Your task to perform on an android device: Go to notification settings Image 0: 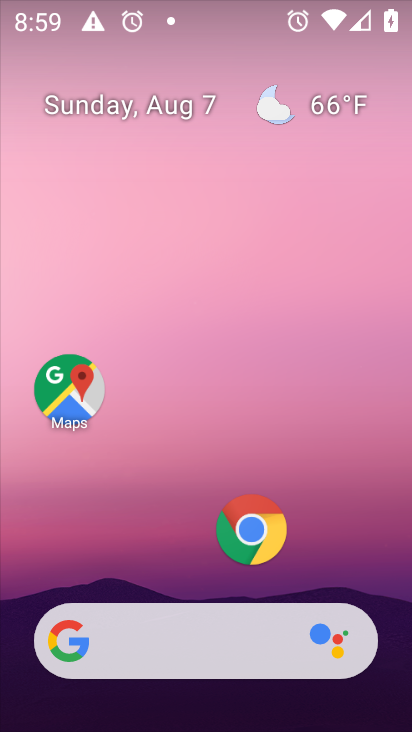
Step 0: drag from (175, 547) to (221, 50)
Your task to perform on an android device: Go to notification settings Image 1: 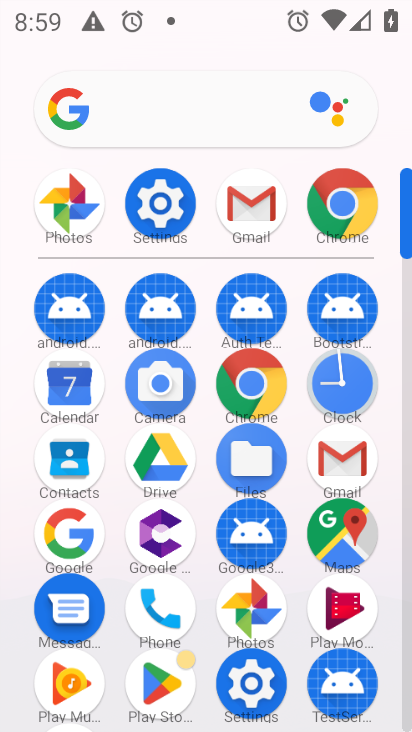
Step 1: click (249, 699)
Your task to perform on an android device: Go to notification settings Image 2: 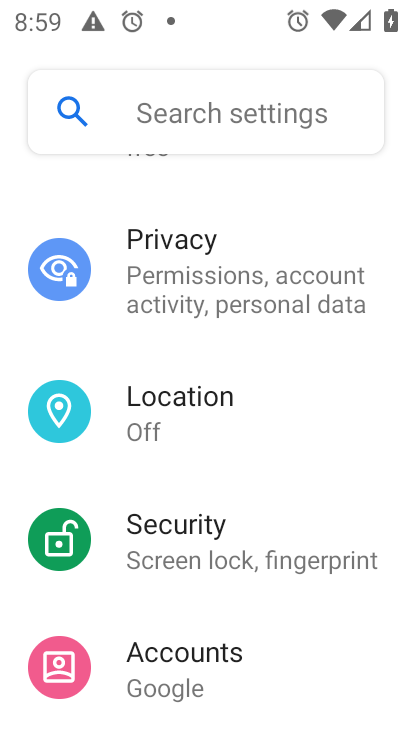
Step 2: drag from (181, 344) to (207, 656)
Your task to perform on an android device: Go to notification settings Image 3: 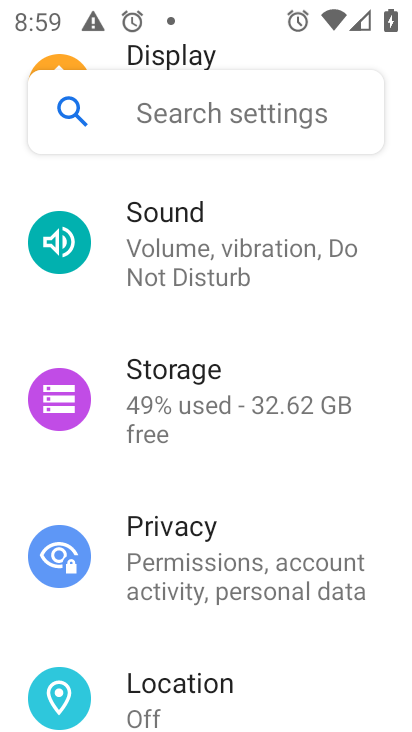
Step 3: drag from (235, 498) to (226, 532)
Your task to perform on an android device: Go to notification settings Image 4: 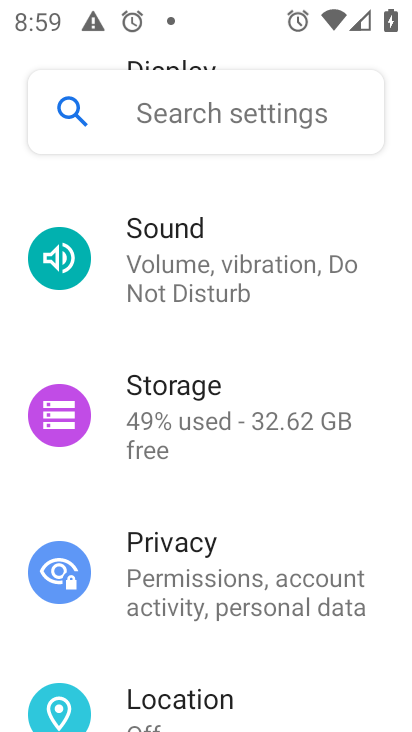
Step 4: drag from (224, 327) to (223, 502)
Your task to perform on an android device: Go to notification settings Image 5: 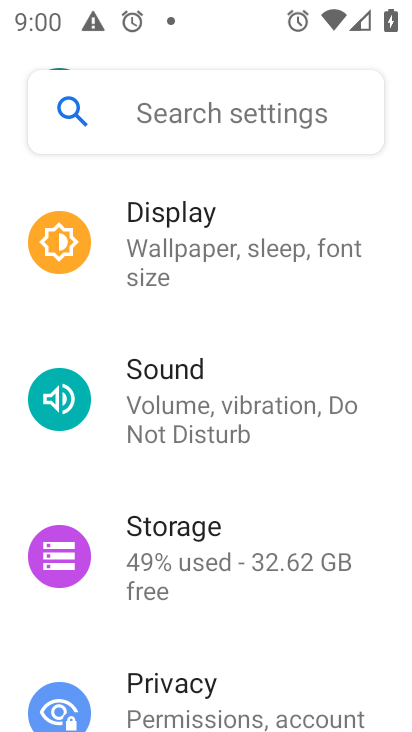
Step 5: drag from (248, 335) to (246, 408)
Your task to perform on an android device: Go to notification settings Image 6: 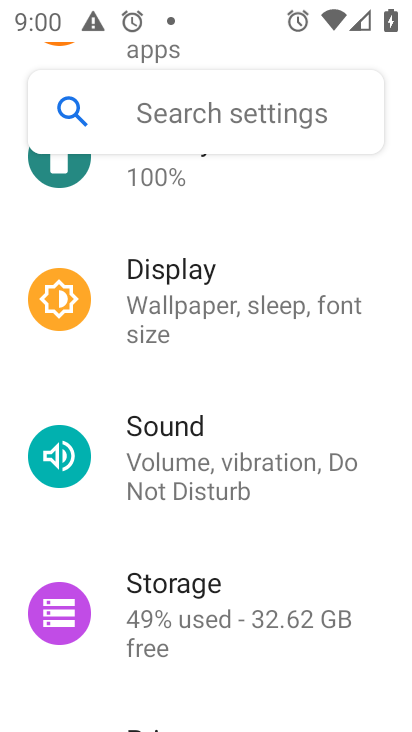
Step 6: drag from (262, 246) to (225, 625)
Your task to perform on an android device: Go to notification settings Image 7: 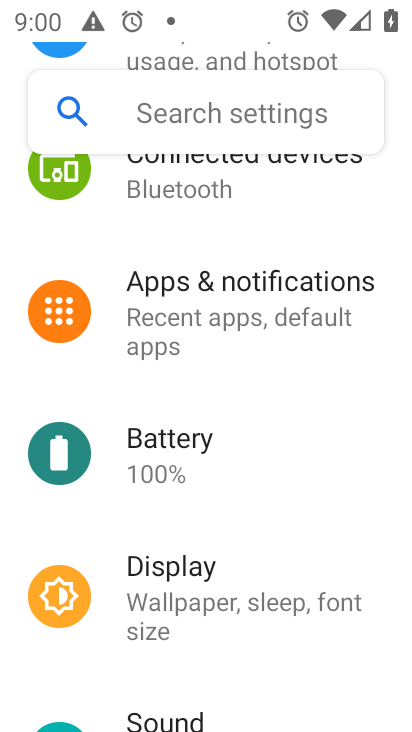
Step 7: click (258, 308)
Your task to perform on an android device: Go to notification settings Image 8: 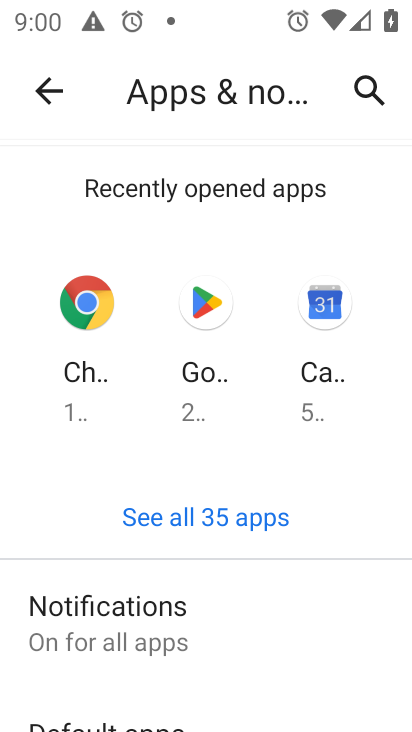
Step 8: click (139, 632)
Your task to perform on an android device: Go to notification settings Image 9: 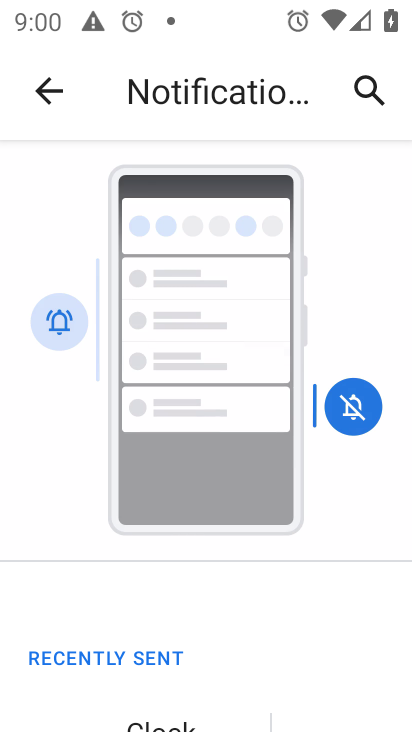
Step 9: task complete